Your task to perform on an android device: turn off sleep mode Image 0: 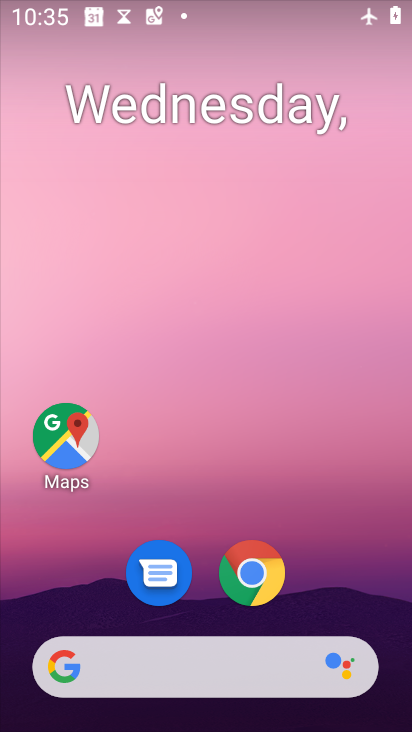
Step 0: drag from (318, 550) to (314, 140)
Your task to perform on an android device: turn off sleep mode Image 1: 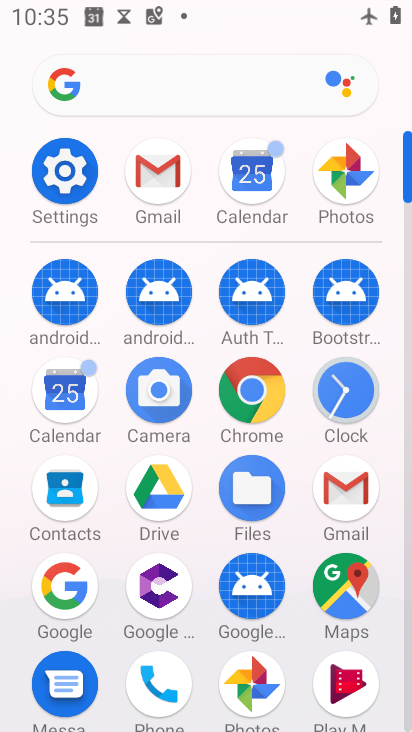
Step 1: click (59, 167)
Your task to perform on an android device: turn off sleep mode Image 2: 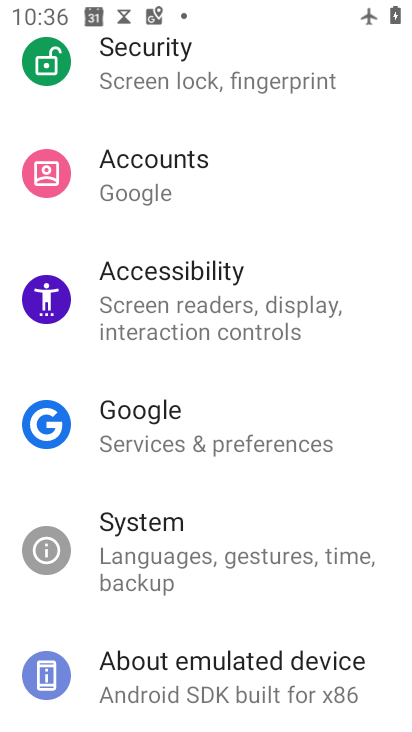
Step 2: task complete